Your task to perform on an android device: allow notifications from all sites in the chrome app Image 0: 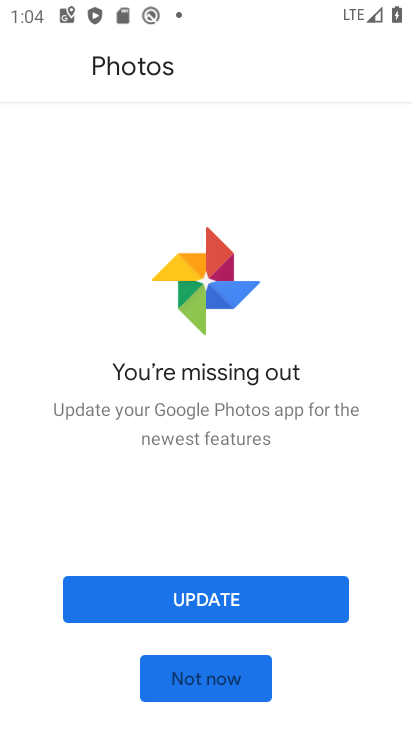
Step 0: press home button
Your task to perform on an android device: allow notifications from all sites in the chrome app Image 1: 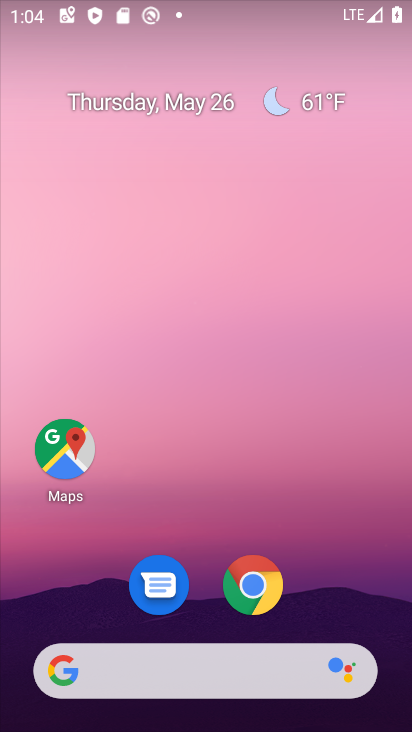
Step 1: click (241, 578)
Your task to perform on an android device: allow notifications from all sites in the chrome app Image 2: 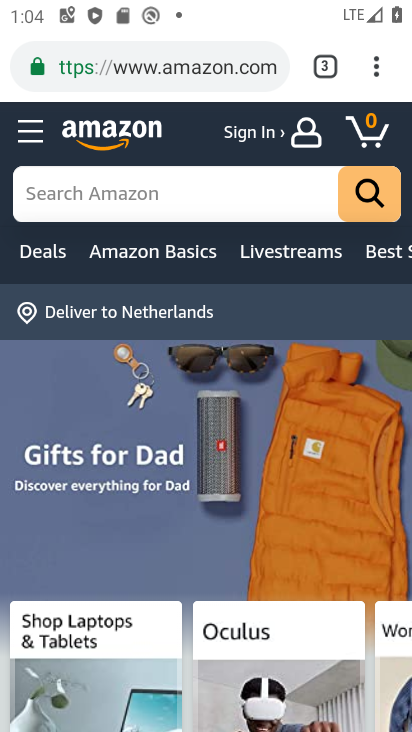
Step 2: click (373, 67)
Your task to perform on an android device: allow notifications from all sites in the chrome app Image 3: 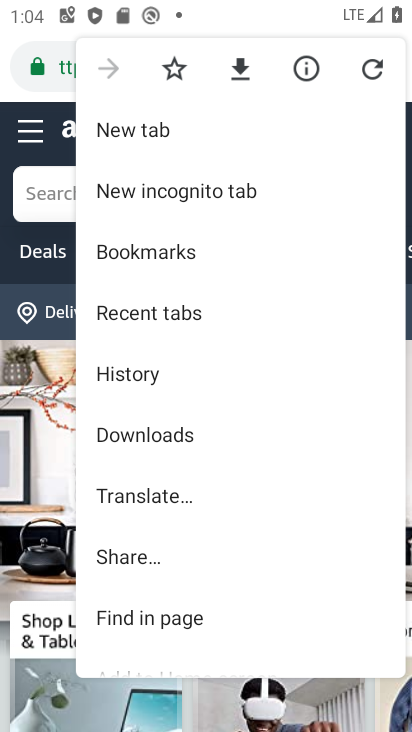
Step 3: drag from (256, 497) to (261, 289)
Your task to perform on an android device: allow notifications from all sites in the chrome app Image 4: 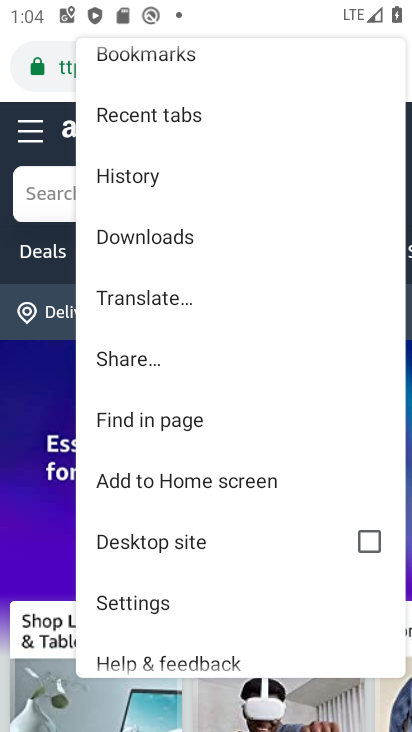
Step 4: click (180, 602)
Your task to perform on an android device: allow notifications from all sites in the chrome app Image 5: 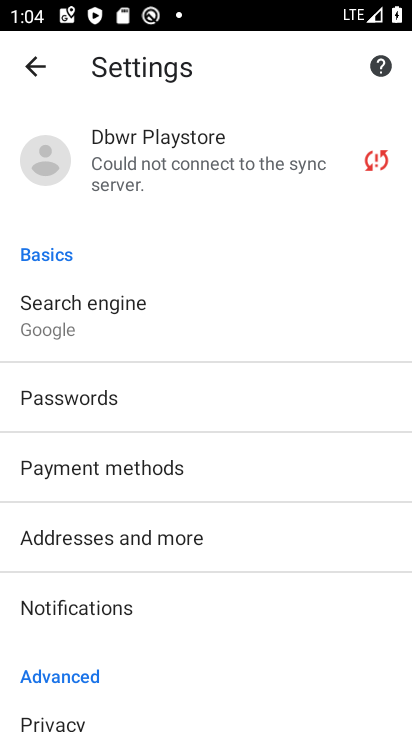
Step 5: click (180, 600)
Your task to perform on an android device: allow notifications from all sites in the chrome app Image 6: 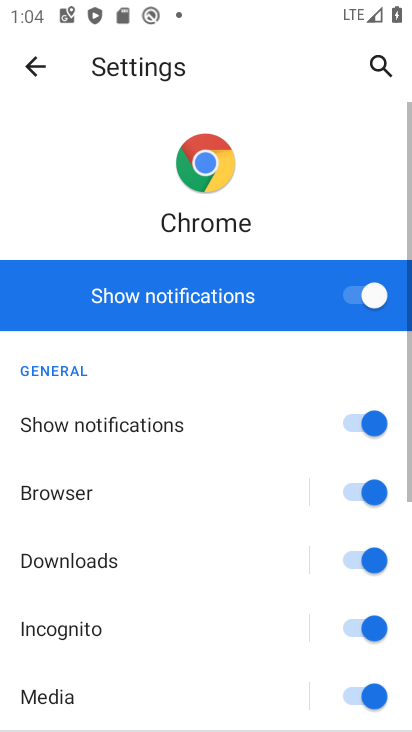
Step 6: task complete